Your task to perform on an android device: turn off translation in the chrome app Image 0: 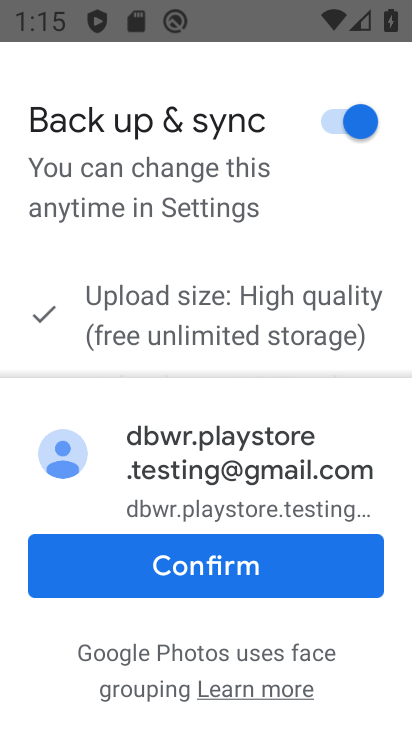
Step 0: press home button
Your task to perform on an android device: turn off translation in the chrome app Image 1: 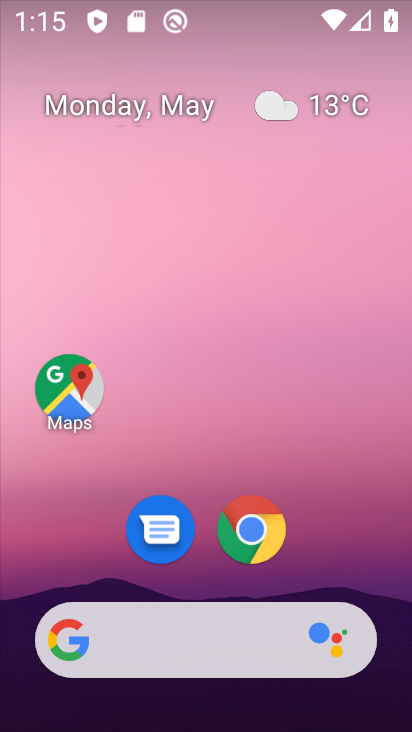
Step 1: click (287, 542)
Your task to perform on an android device: turn off translation in the chrome app Image 2: 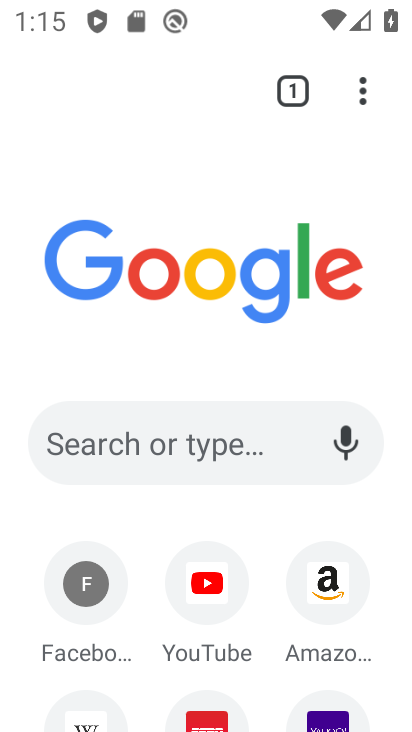
Step 2: click (369, 102)
Your task to perform on an android device: turn off translation in the chrome app Image 3: 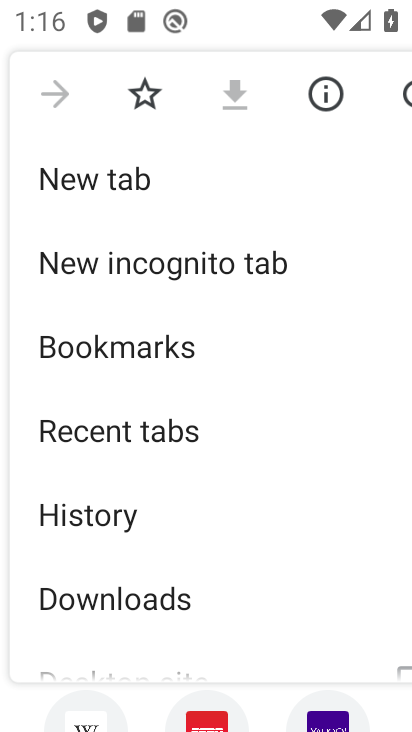
Step 3: drag from (266, 586) to (259, 172)
Your task to perform on an android device: turn off translation in the chrome app Image 4: 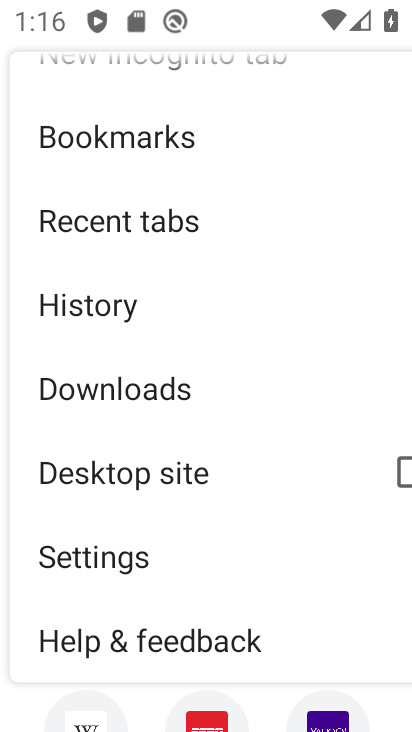
Step 4: click (304, 557)
Your task to perform on an android device: turn off translation in the chrome app Image 5: 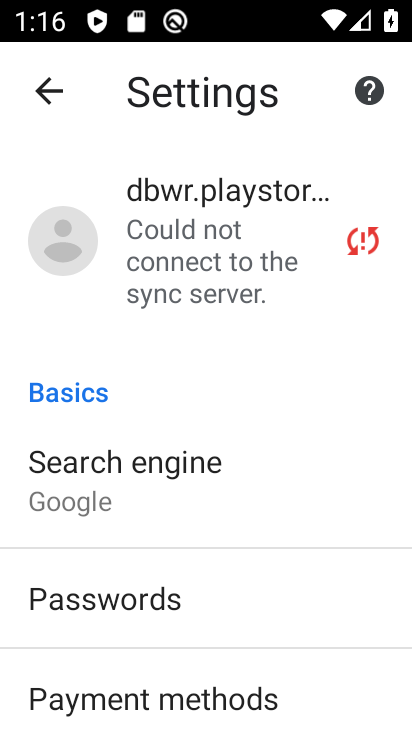
Step 5: drag from (255, 658) to (271, 38)
Your task to perform on an android device: turn off translation in the chrome app Image 6: 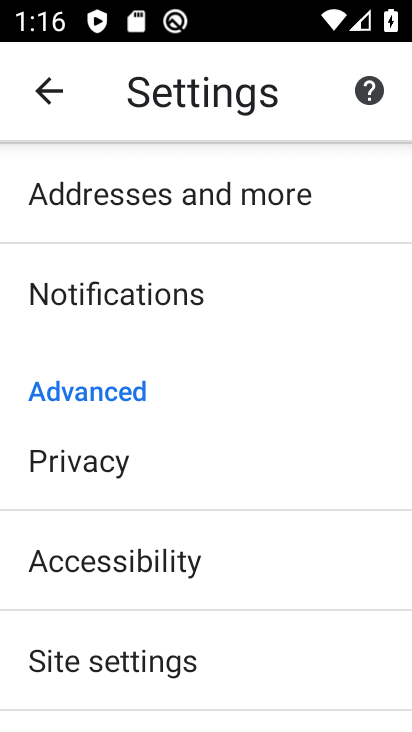
Step 6: drag from (261, 633) to (196, 258)
Your task to perform on an android device: turn off translation in the chrome app Image 7: 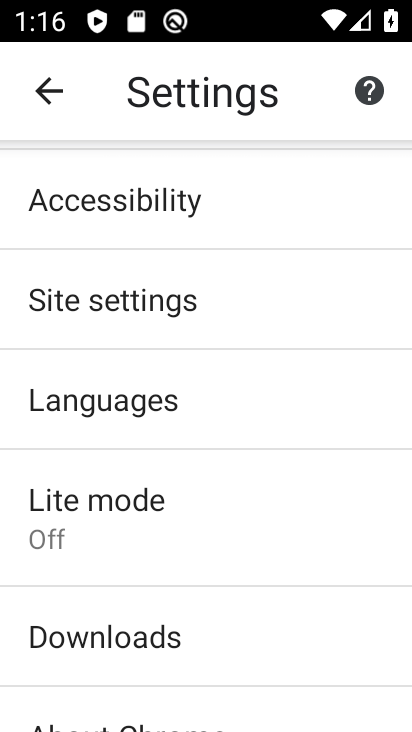
Step 7: click (231, 408)
Your task to perform on an android device: turn off translation in the chrome app Image 8: 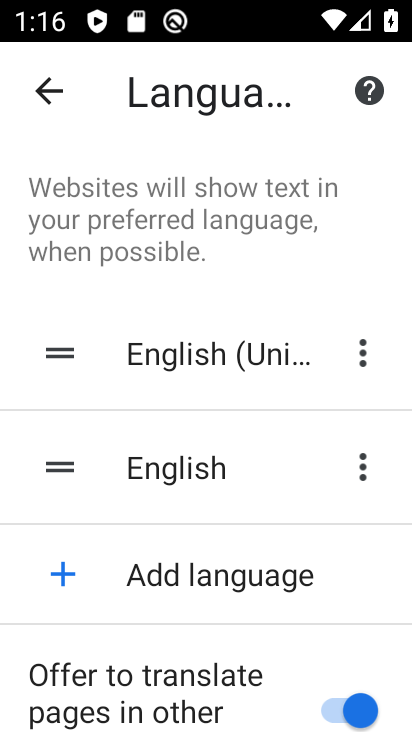
Step 8: drag from (231, 408) to (343, 702)
Your task to perform on an android device: turn off translation in the chrome app Image 9: 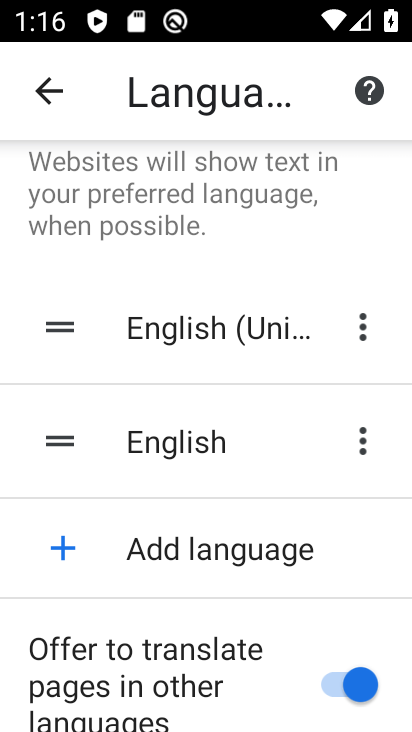
Step 9: click (341, 681)
Your task to perform on an android device: turn off translation in the chrome app Image 10: 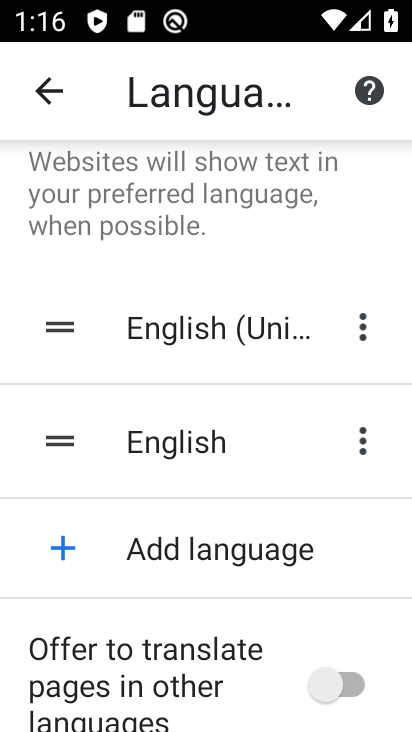
Step 10: task complete